Your task to perform on an android device: change text size in settings app Image 0: 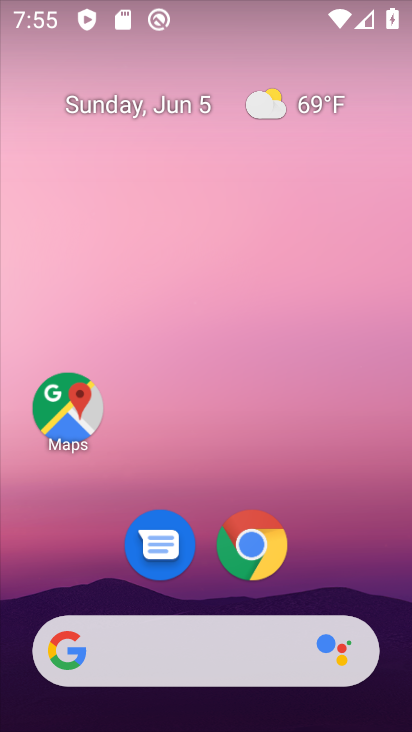
Step 0: drag from (376, 610) to (360, 162)
Your task to perform on an android device: change text size in settings app Image 1: 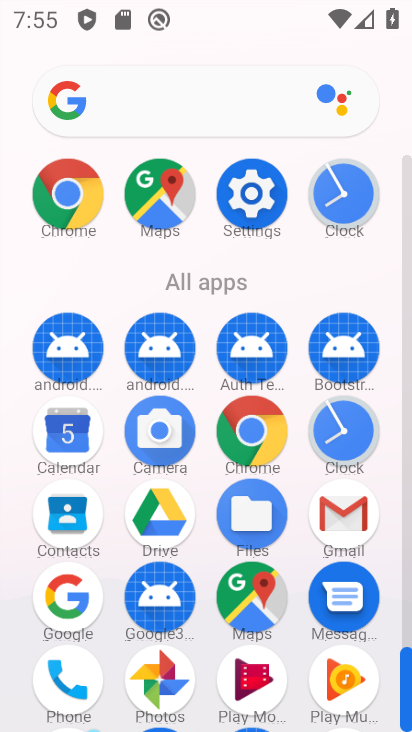
Step 1: click (261, 205)
Your task to perform on an android device: change text size in settings app Image 2: 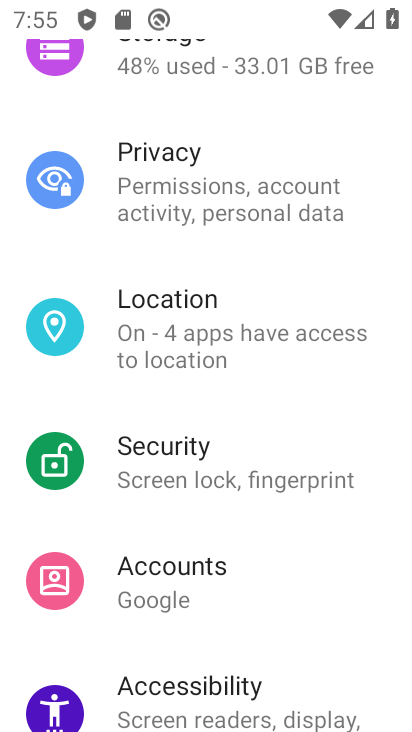
Step 2: drag from (369, 249) to (370, 370)
Your task to perform on an android device: change text size in settings app Image 3: 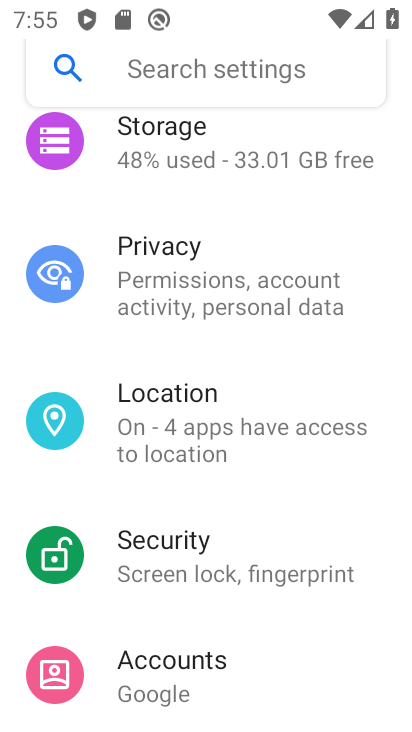
Step 3: drag from (363, 225) to (374, 335)
Your task to perform on an android device: change text size in settings app Image 4: 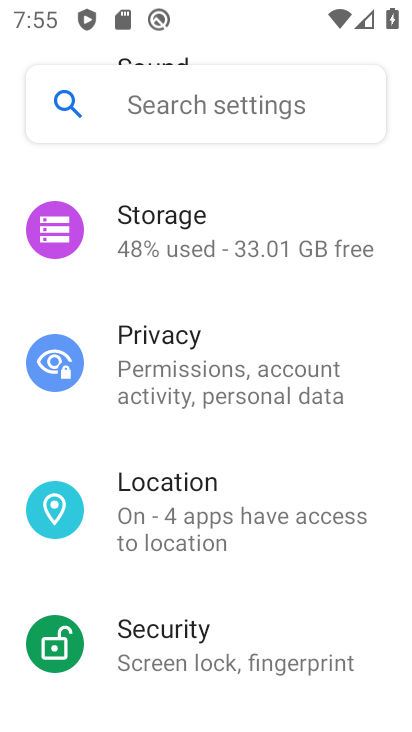
Step 4: drag from (370, 204) to (351, 344)
Your task to perform on an android device: change text size in settings app Image 5: 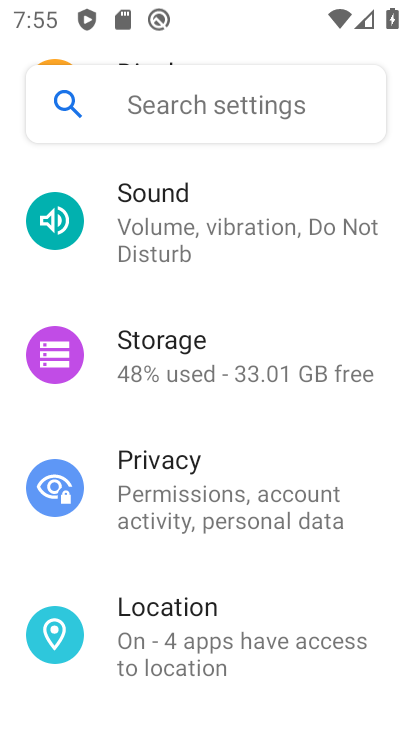
Step 5: drag from (386, 176) to (388, 315)
Your task to perform on an android device: change text size in settings app Image 6: 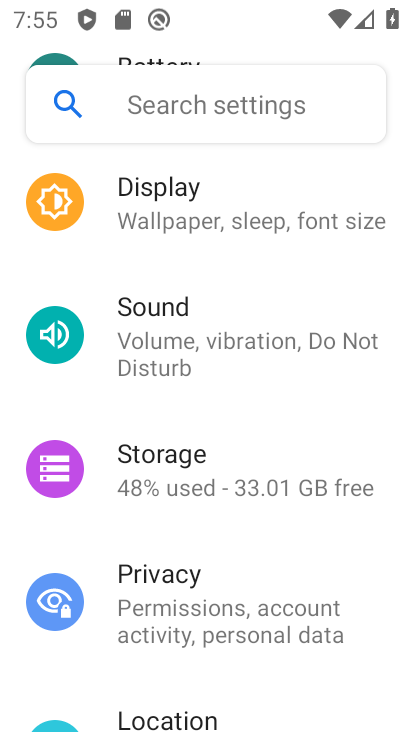
Step 6: drag from (385, 171) to (384, 309)
Your task to perform on an android device: change text size in settings app Image 7: 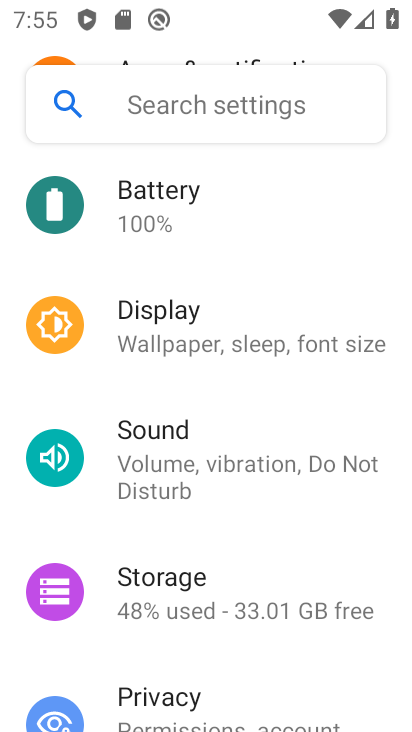
Step 7: drag from (368, 212) to (362, 510)
Your task to perform on an android device: change text size in settings app Image 8: 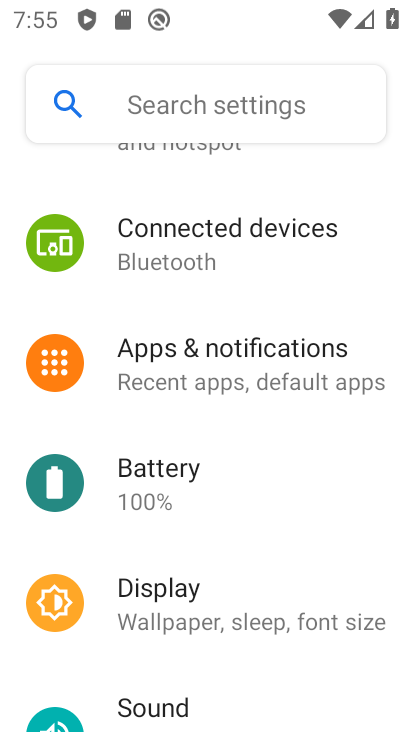
Step 8: click (237, 608)
Your task to perform on an android device: change text size in settings app Image 9: 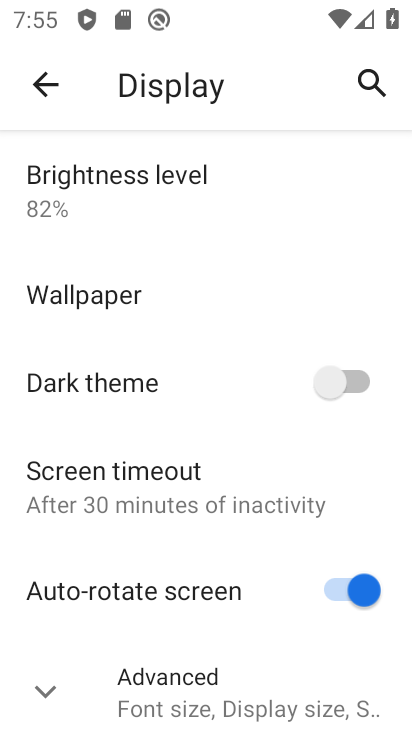
Step 9: click (201, 671)
Your task to perform on an android device: change text size in settings app Image 10: 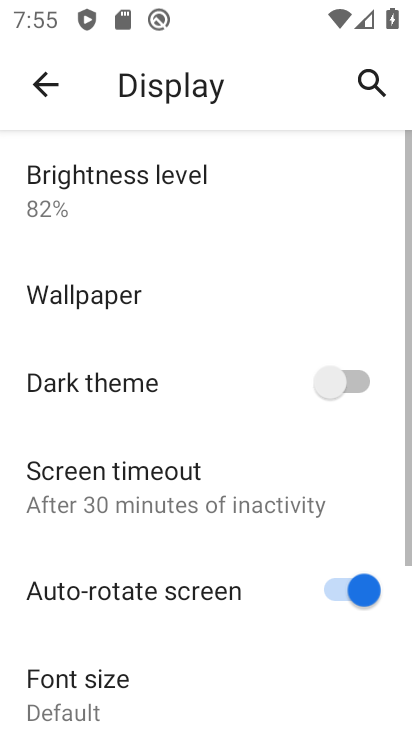
Step 10: drag from (271, 630) to (285, 478)
Your task to perform on an android device: change text size in settings app Image 11: 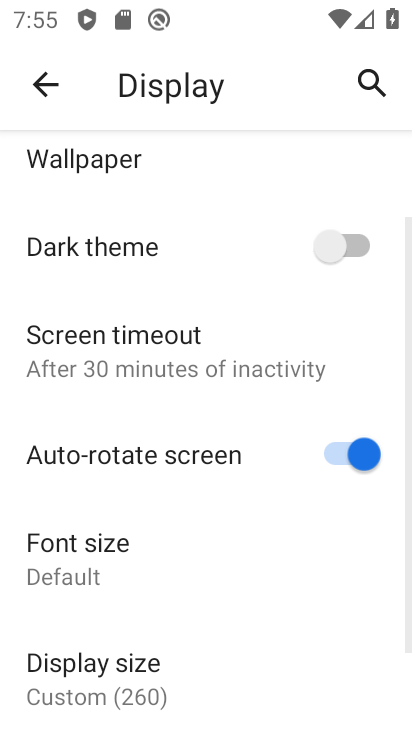
Step 11: drag from (279, 610) to (284, 409)
Your task to perform on an android device: change text size in settings app Image 12: 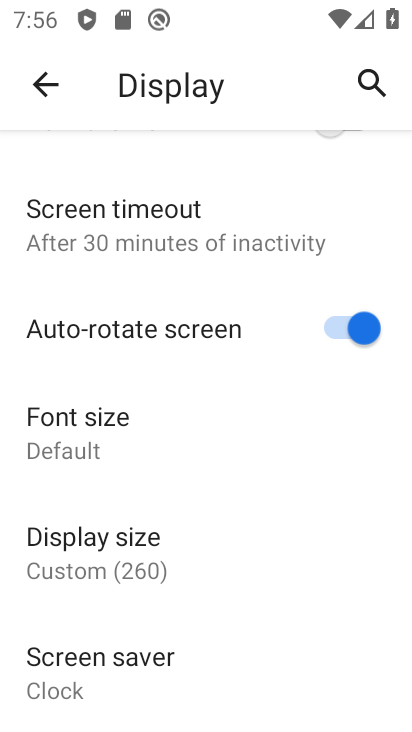
Step 12: click (155, 447)
Your task to perform on an android device: change text size in settings app Image 13: 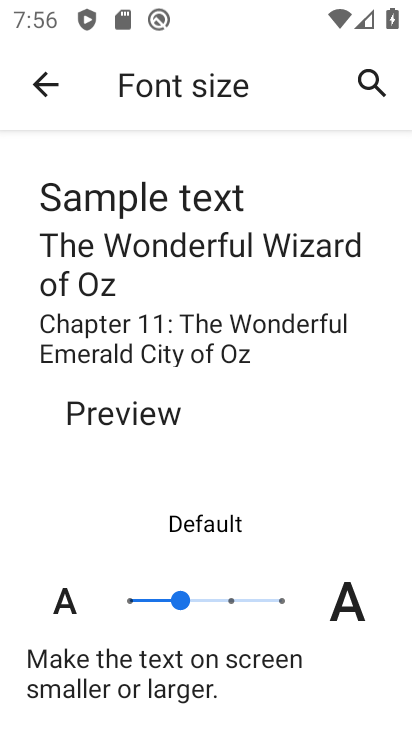
Step 13: click (233, 605)
Your task to perform on an android device: change text size in settings app Image 14: 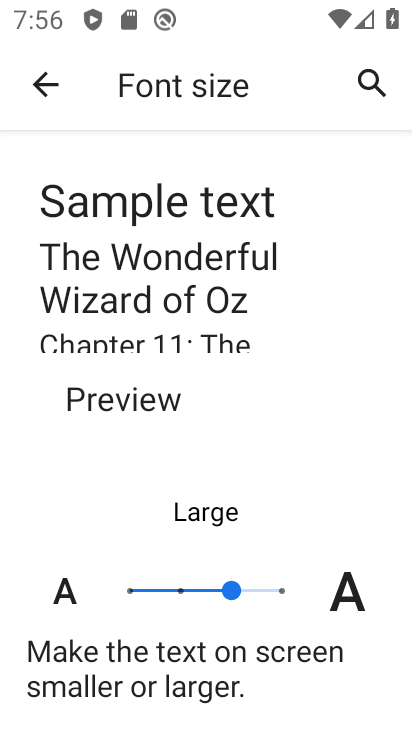
Step 14: task complete